Your task to perform on an android device: turn on priority inbox in the gmail app Image 0: 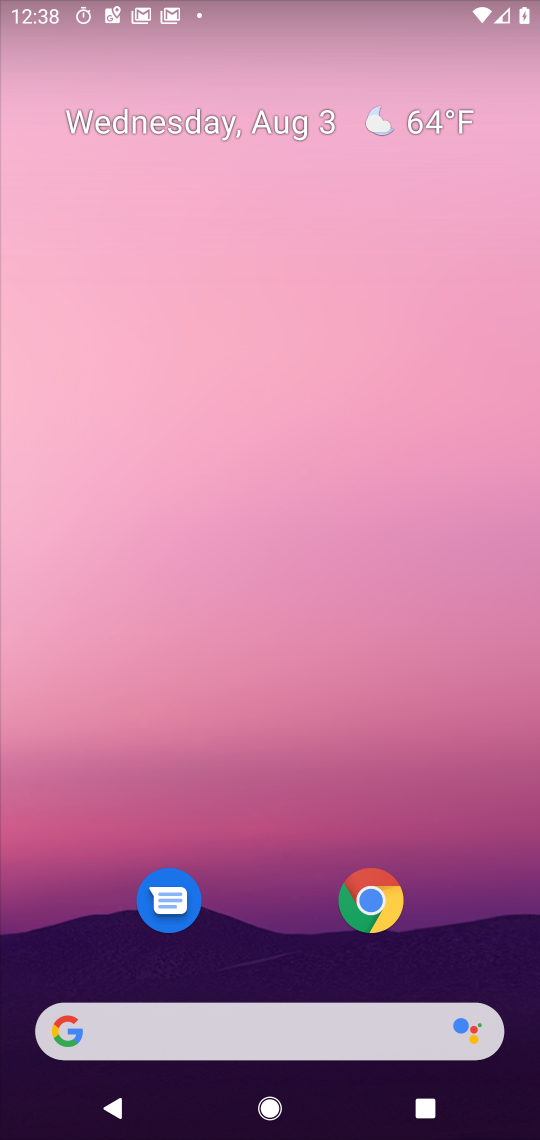
Step 0: drag from (465, 720) to (465, 56)
Your task to perform on an android device: turn on priority inbox in the gmail app Image 1: 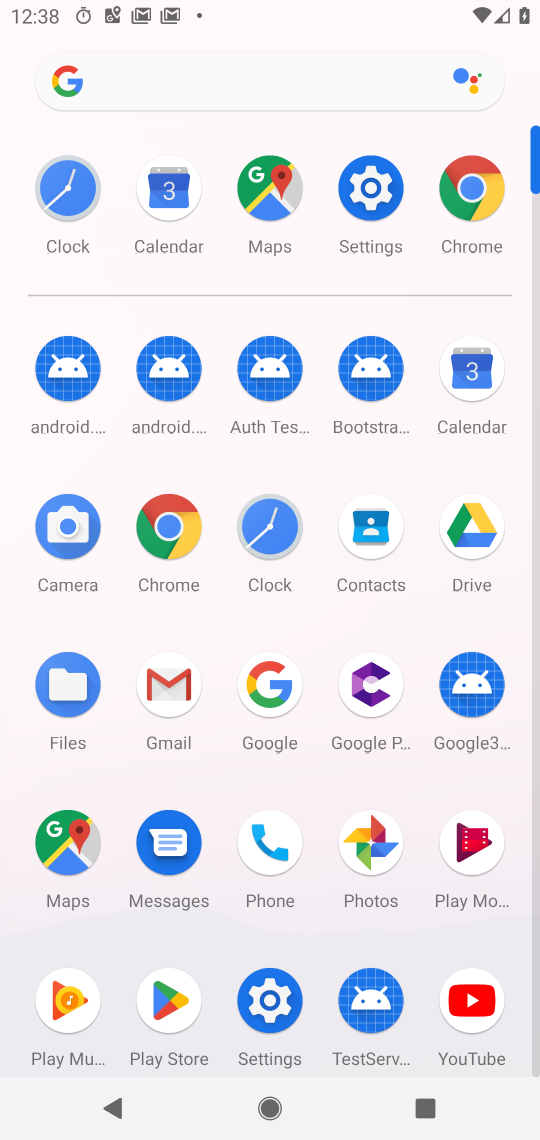
Step 1: click (177, 683)
Your task to perform on an android device: turn on priority inbox in the gmail app Image 2: 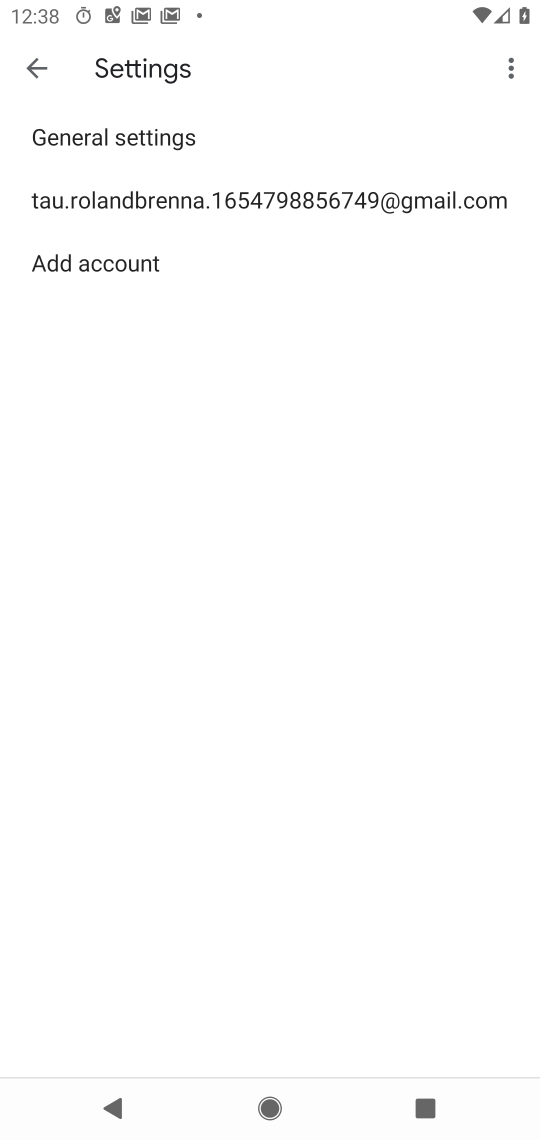
Step 2: click (105, 204)
Your task to perform on an android device: turn on priority inbox in the gmail app Image 3: 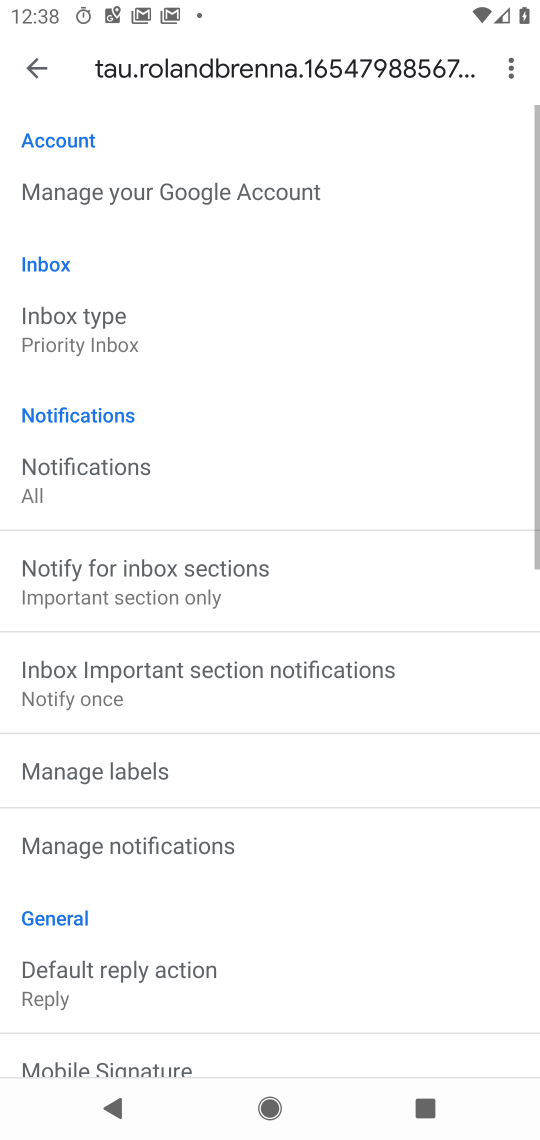
Step 3: click (101, 353)
Your task to perform on an android device: turn on priority inbox in the gmail app Image 4: 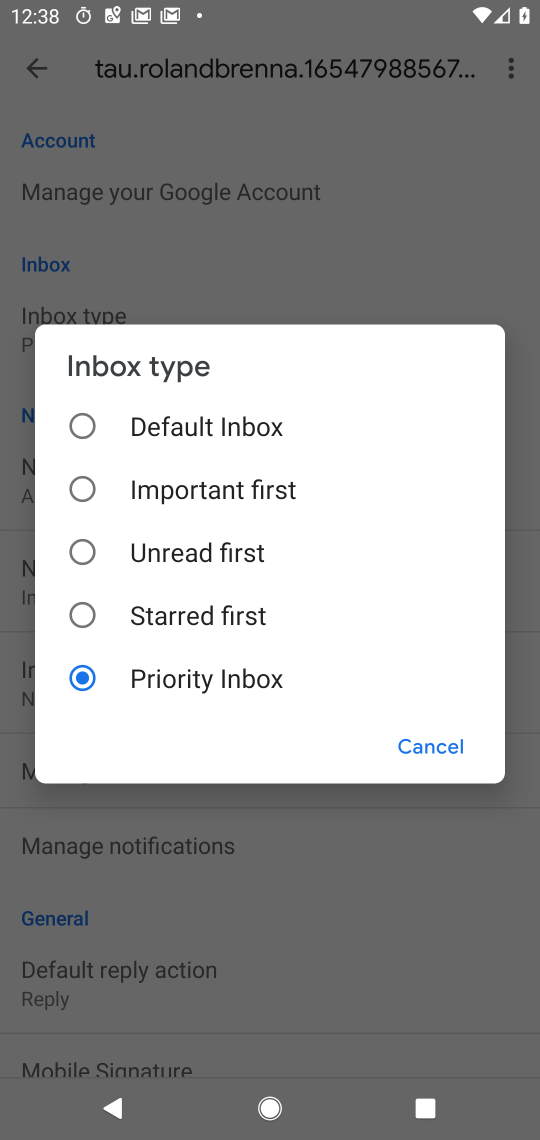
Step 4: task complete